Your task to perform on an android device: What's on my calendar tomorrow? Image 0: 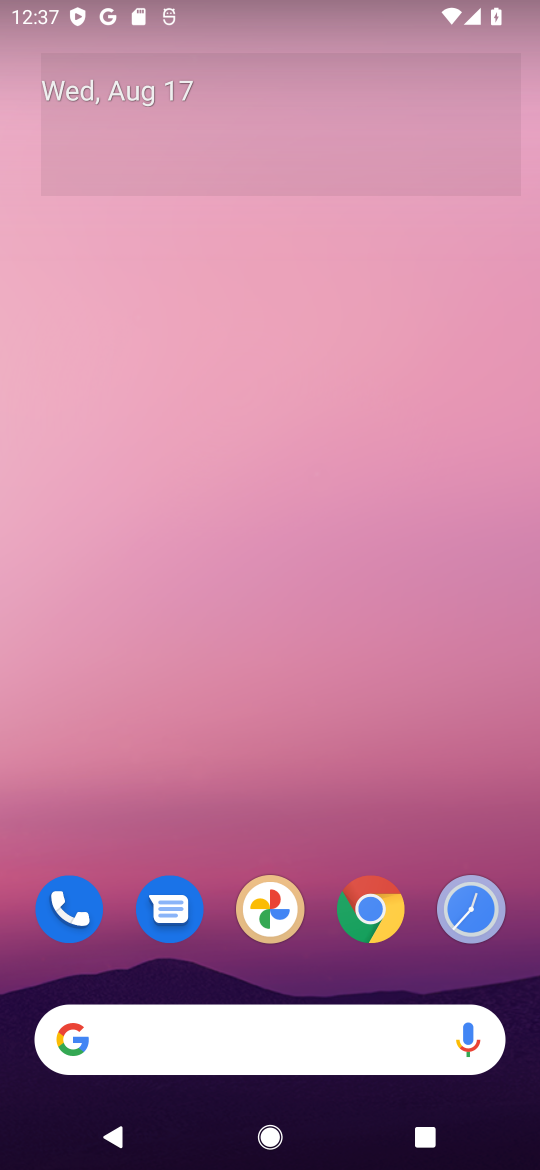
Step 0: press home button
Your task to perform on an android device: What's on my calendar tomorrow? Image 1: 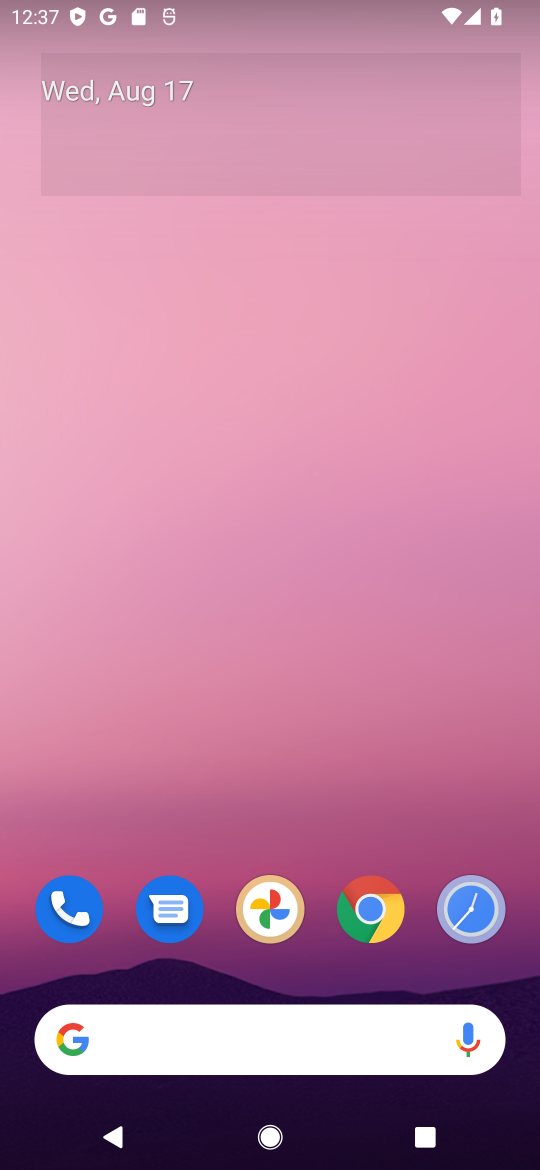
Step 1: drag from (285, 770) to (316, 79)
Your task to perform on an android device: What's on my calendar tomorrow? Image 2: 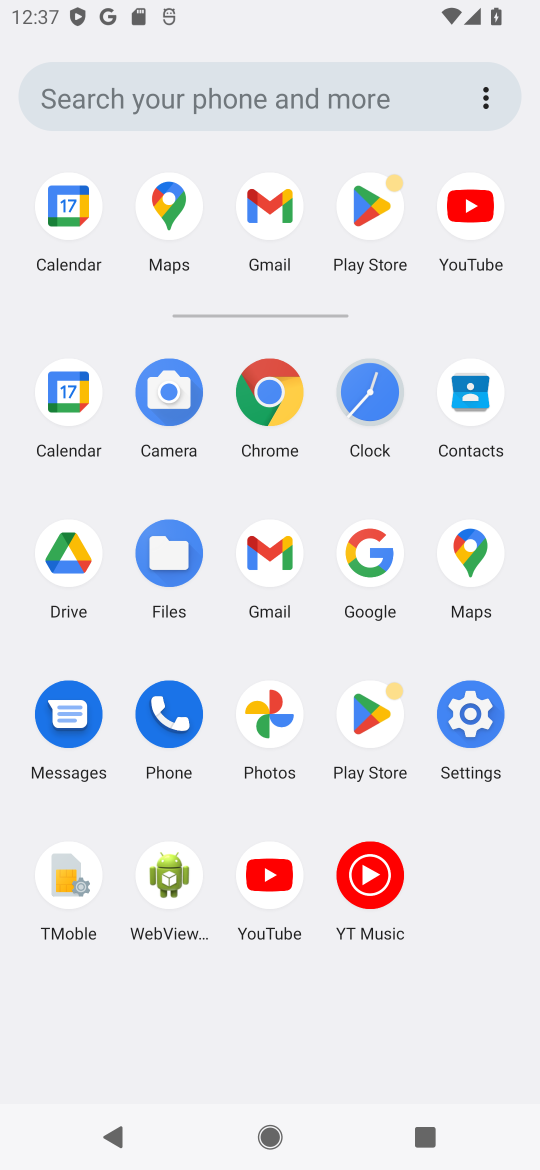
Step 2: click (67, 212)
Your task to perform on an android device: What's on my calendar tomorrow? Image 3: 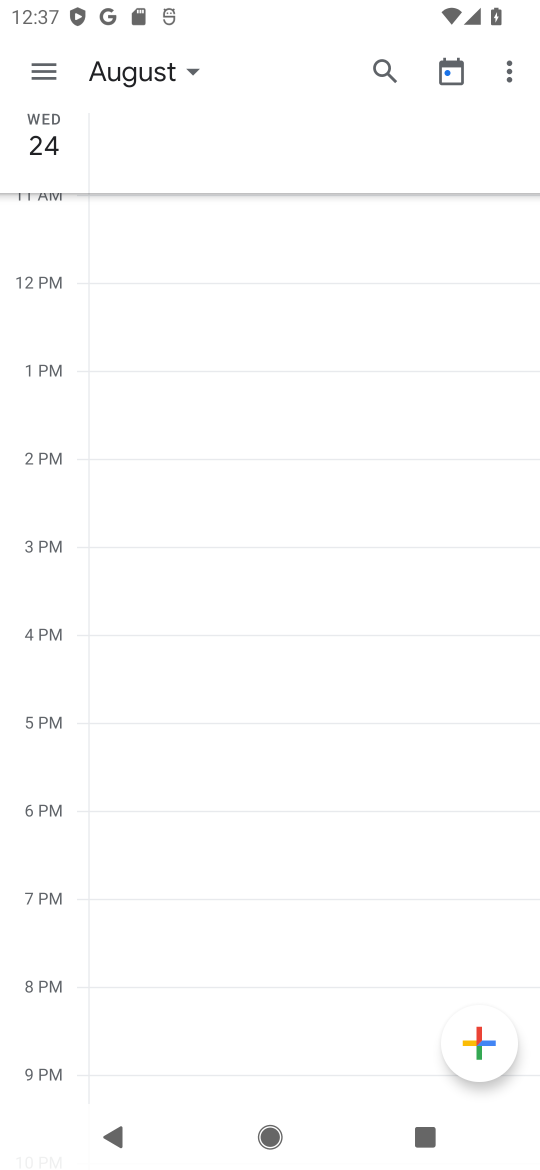
Step 3: click (43, 58)
Your task to perform on an android device: What's on my calendar tomorrow? Image 4: 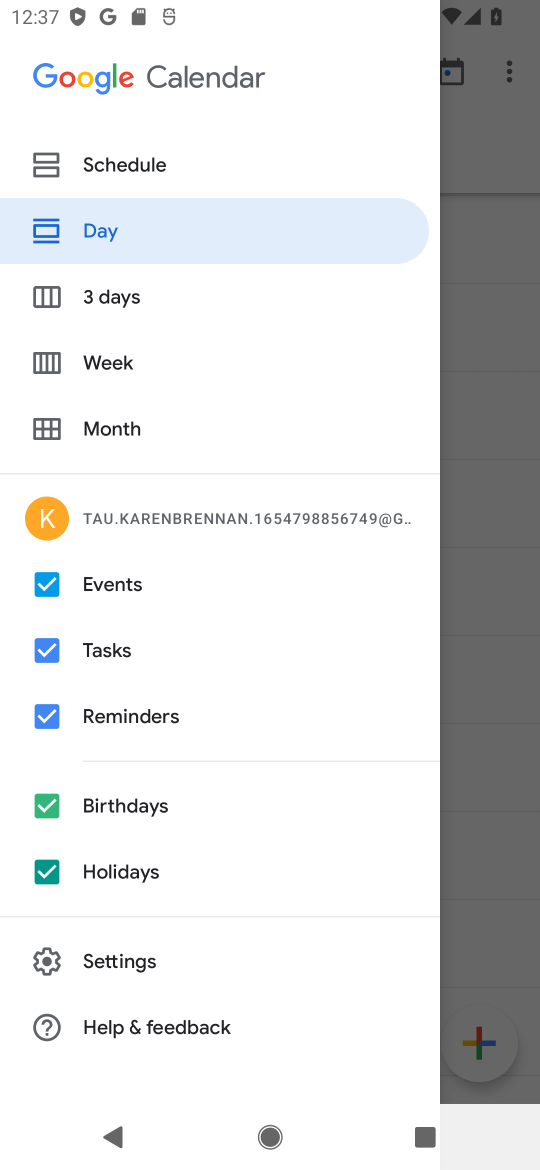
Step 4: click (184, 230)
Your task to perform on an android device: What's on my calendar tomorrow? Image 5: 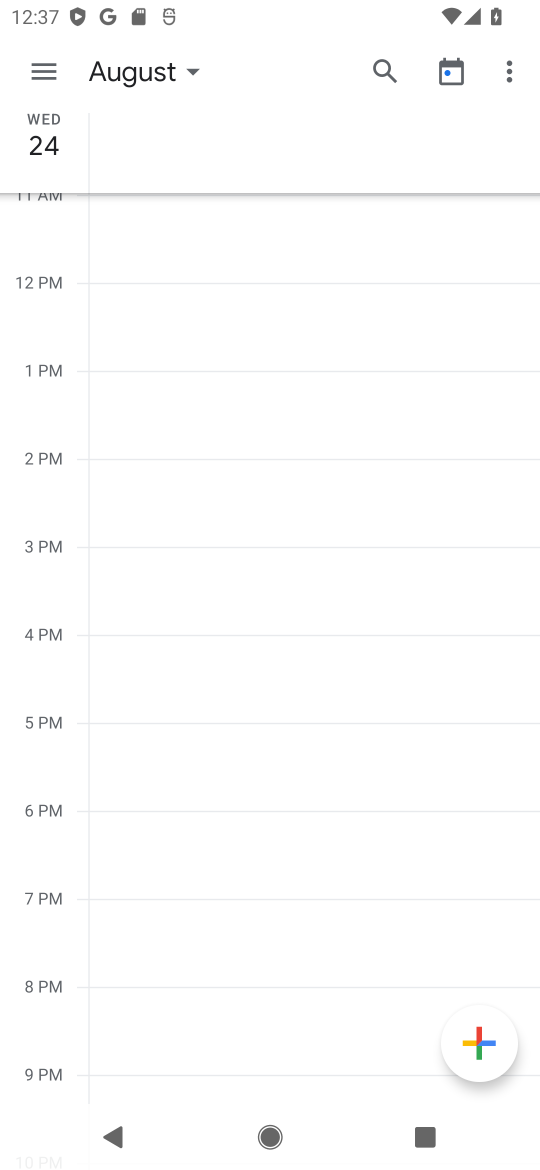
Step 5: click (177, 62)
Your task to perform on an android device: What's on my calendar tomorrow? Image 6: 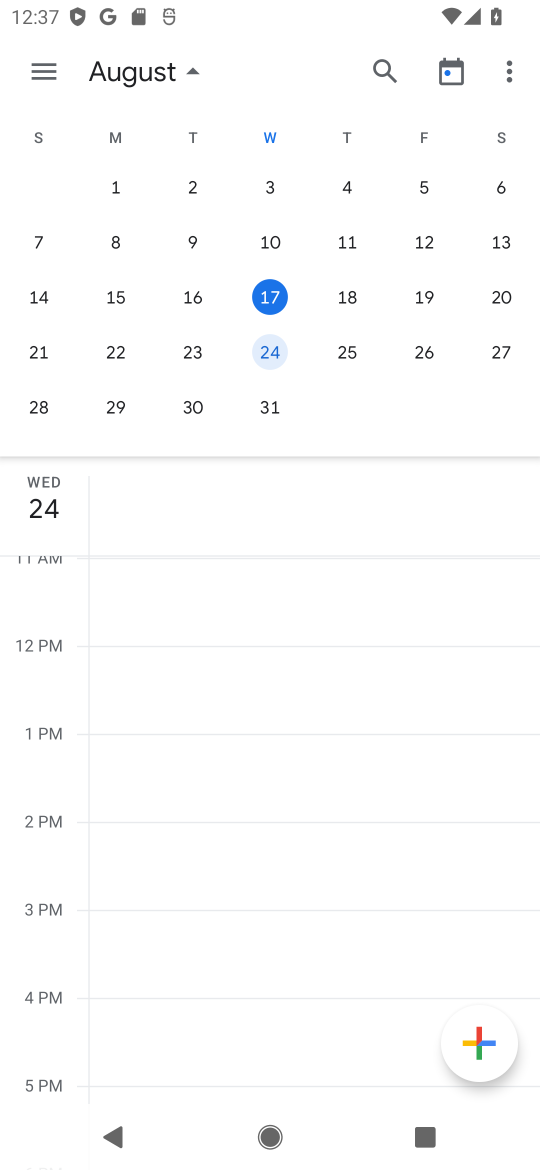
Step 6: click (348, 288)
Your task to perform on an android device: What's on my calendar tomorrow? Image 7: 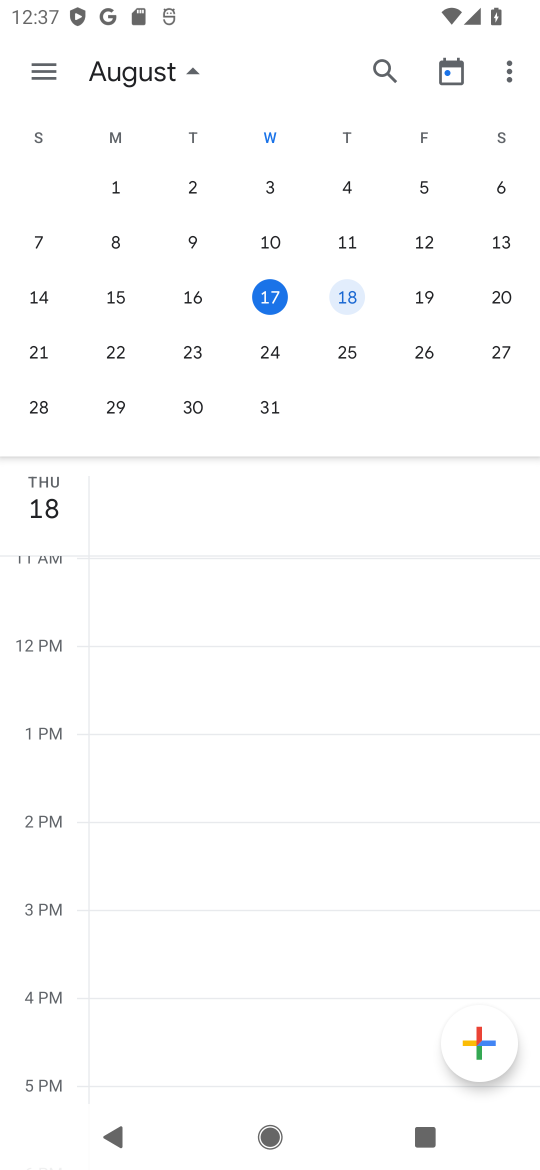
Step 7: task complete